Your task to perform on an android device: Open display settings Image 0: 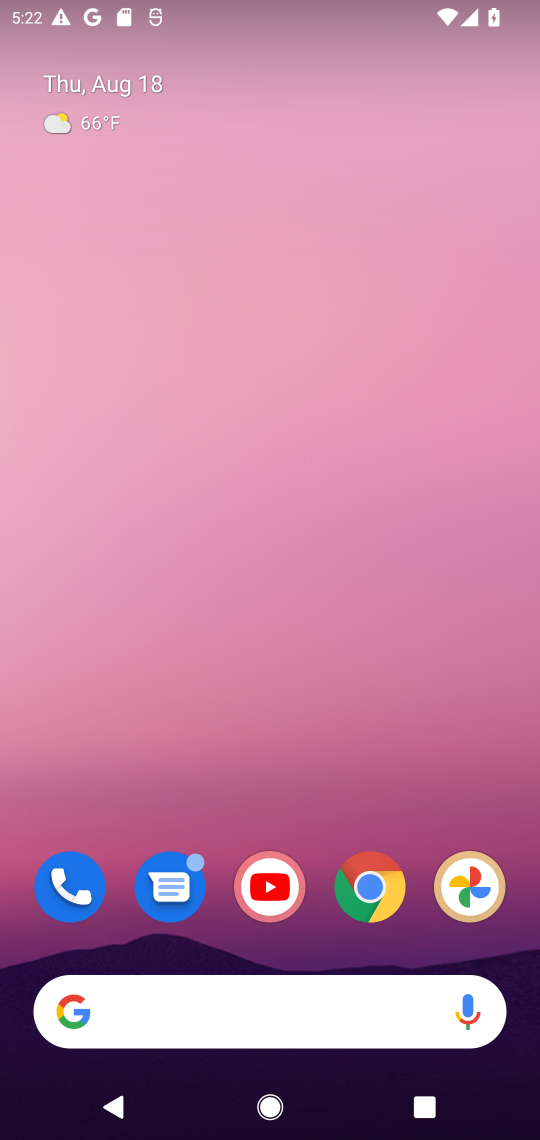
Step 0: drag from (321, 774) to (418, 98)
Your task to perform on an android device: Open display settings Image 1: 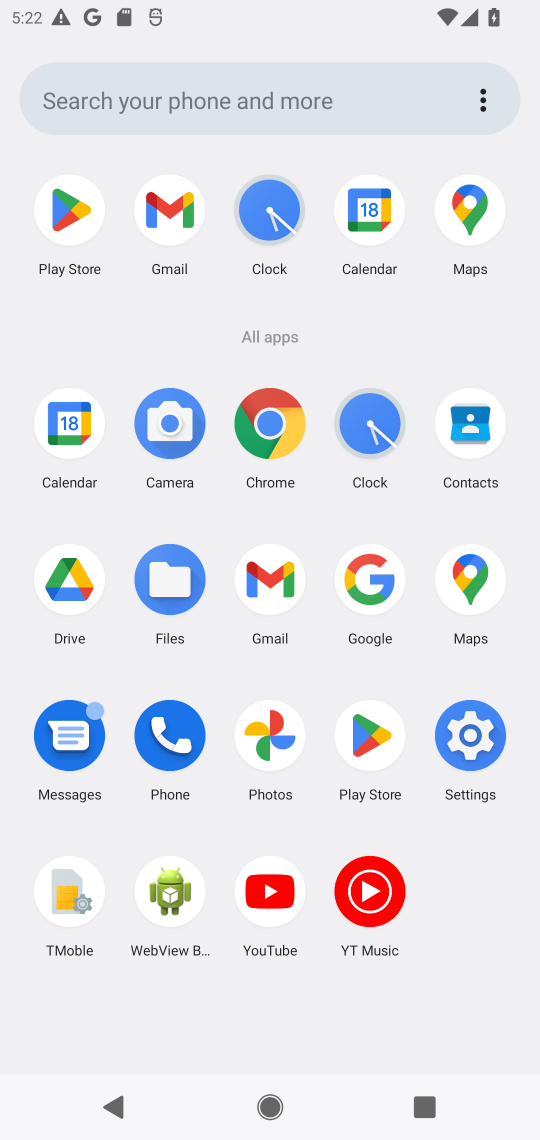
Step 1: click (471, 743)
Your task to perform on an android device: Open display settings Image 2: 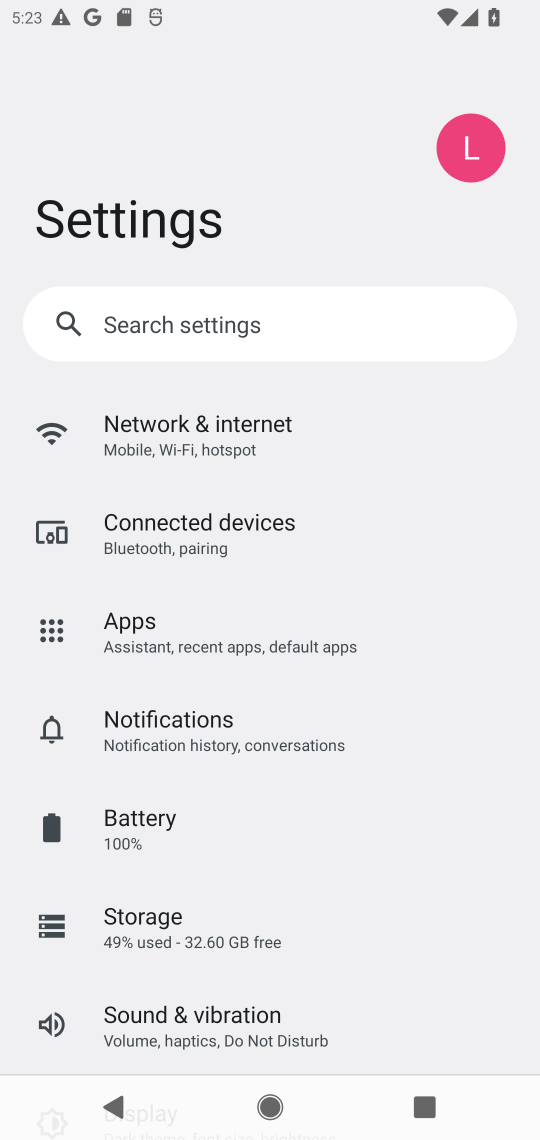
Step 2: task complete